Your task to perform on an android device: Go to privacy settings Image 0: 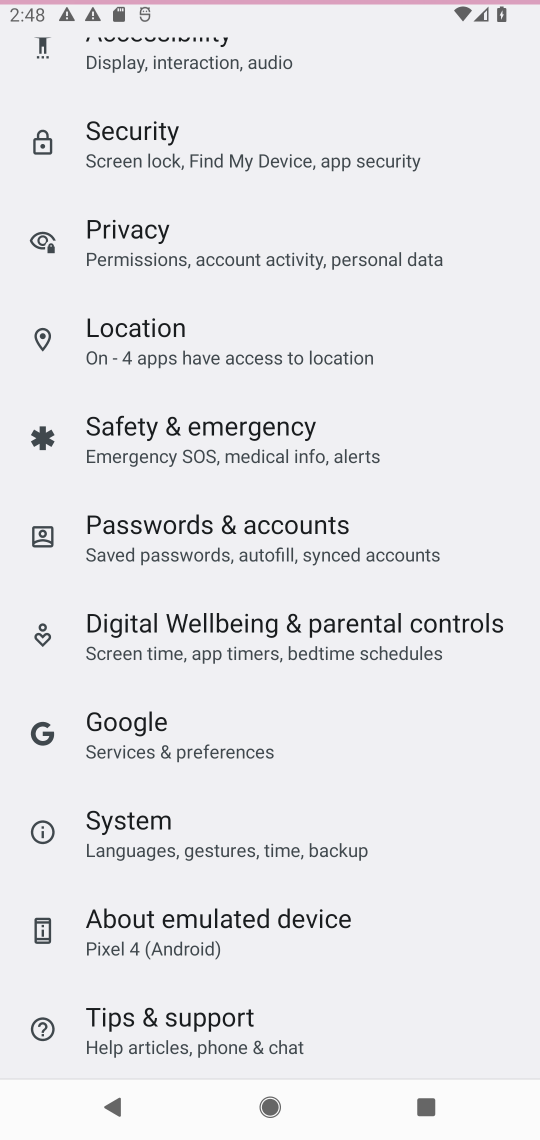
Step 0: press home button
Your task to perform on an android device: Go to privacy settings Image 1: 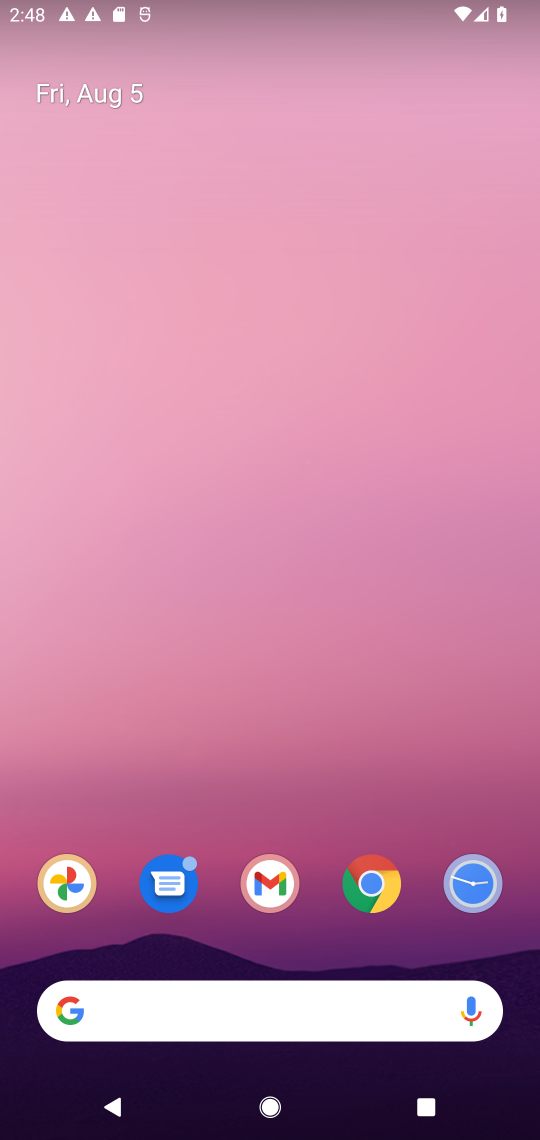
Step 1: drag from (315, 855) to (347, 80)
Your task to perform on an android device: Go to privacy settings Image 2: 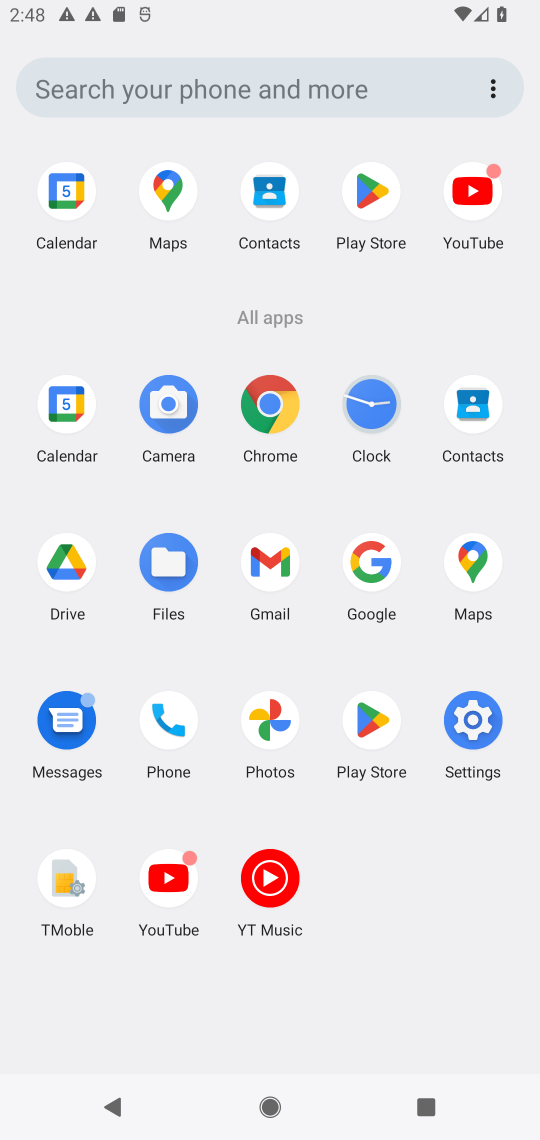
Step 2: click (469, 710)
Your task to perform on an android device: Go to privacy settings Image 3: 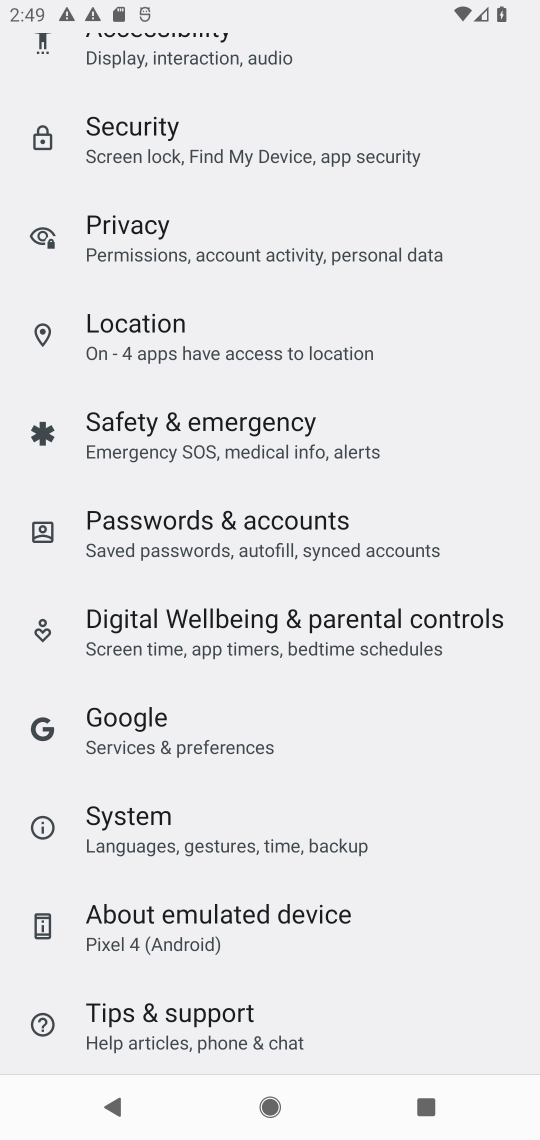
Step 3: click (181, 220)
Your task to perform on an android device: Go to privacy settings Image 4: 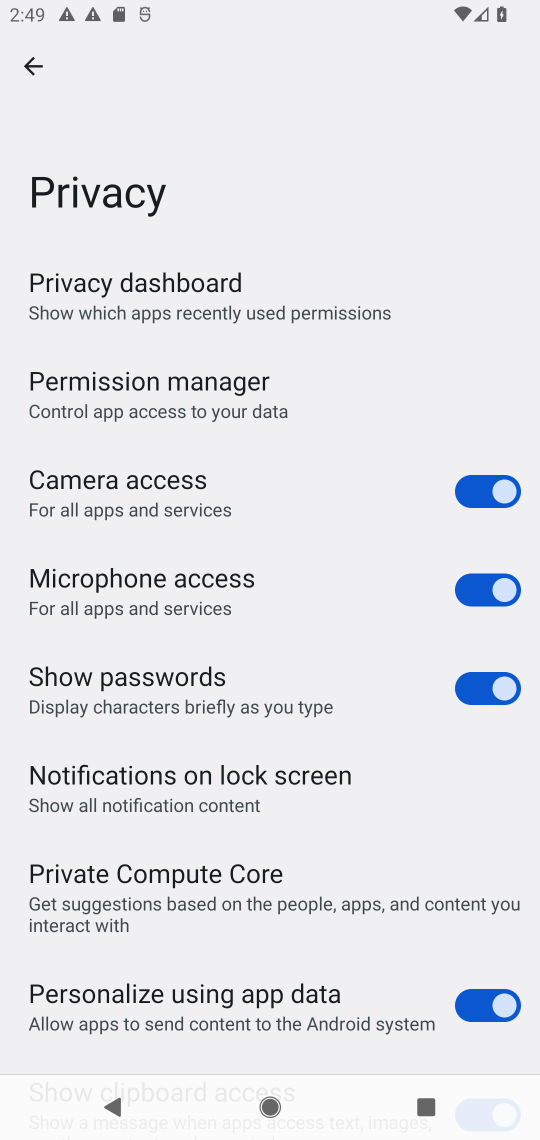
Step 4: task complete